Your task to perform on an android device: Go to display settings Image 0: 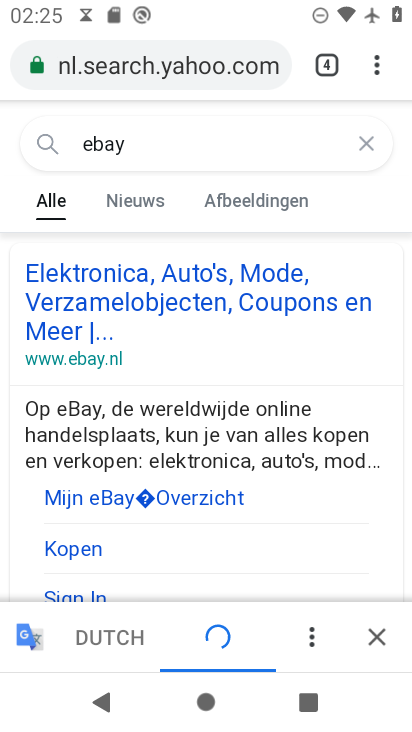
Step 0: press home button
Your task to perform on an android device: Go to display settings Image 1: 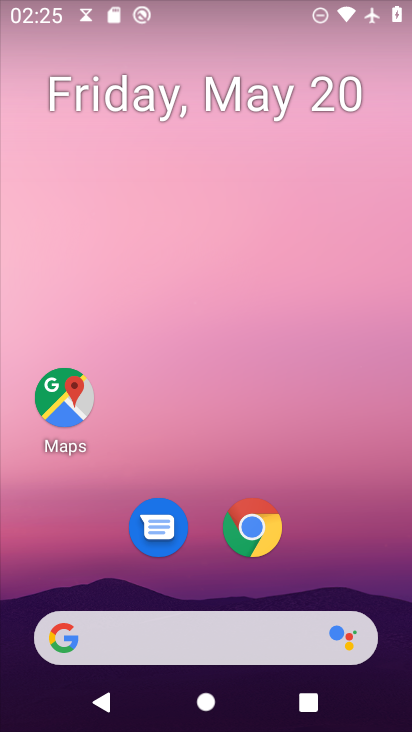
Step 1: drag from (218, 645) to (319, 175)
Your task to perform on an android device: Go to display settings Image 2: 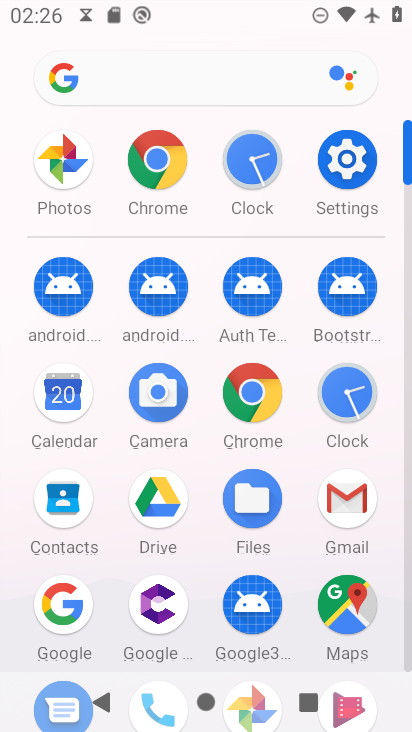
Step 2: click (350, 169)
Your task to perform on an android device: Go to display settings Image 3: 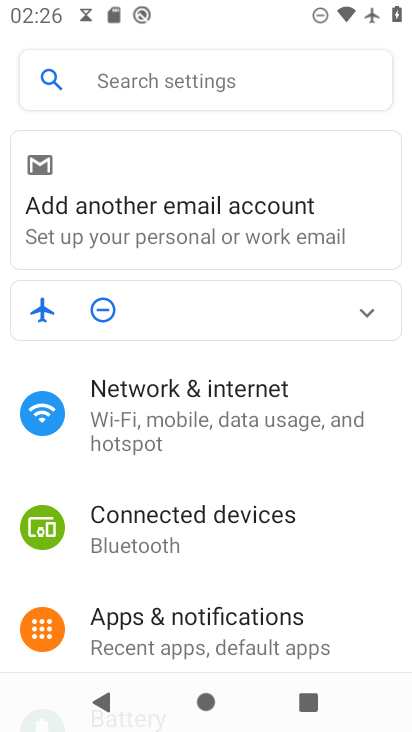
Step 3: drag from (169, 571) to (349, 249)
Your task to perform on an android device: Go to display settings Image 4: 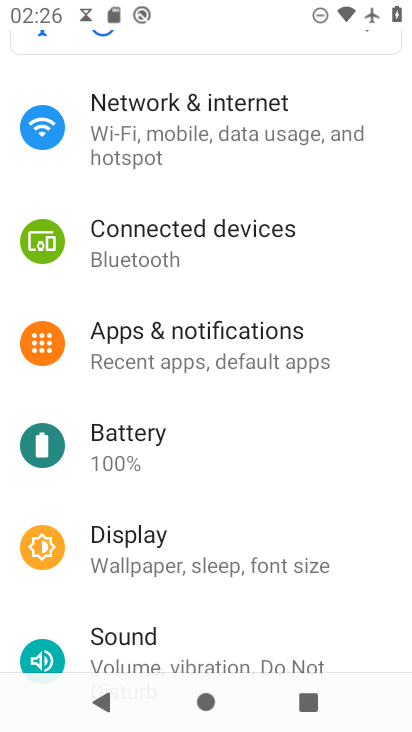
Step 4: click (169, 548)
Your task to perform on an android device: Go to display settings Image 5: 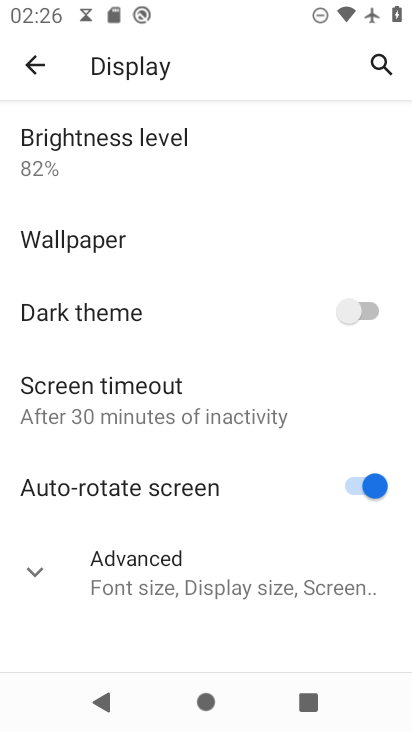
Step 5: task complete